Your task to perform on an android device: Open settings Image 0: 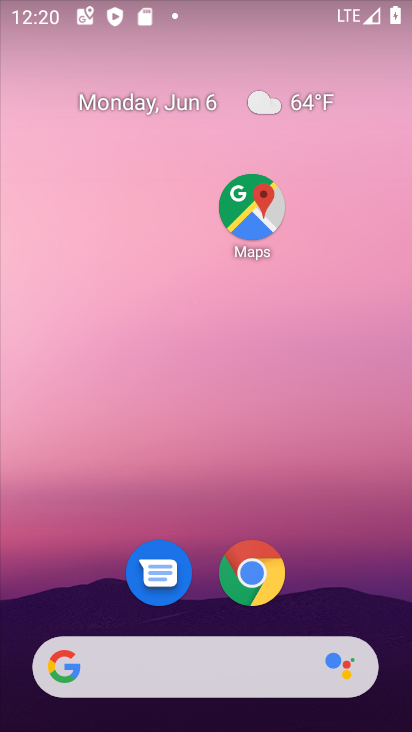
Step 0: drag from (173, 478) to (171, 99)
Your task to perform on an android device: Open settings Image 1: 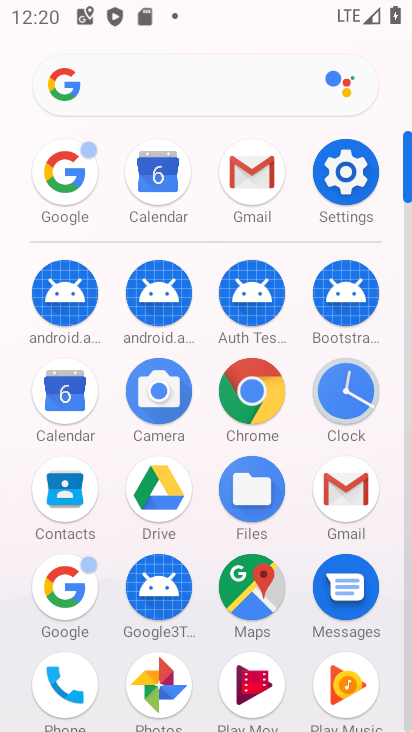
Step 1: click (343, 187)
Your task to perform on an android device: Open settings Image 2: 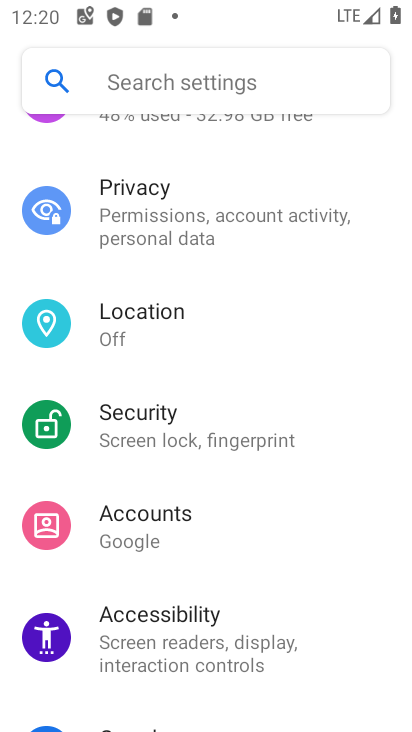
Step 2: task complete